Your task to perform on an android device: Turn off the flashlight Image 0: 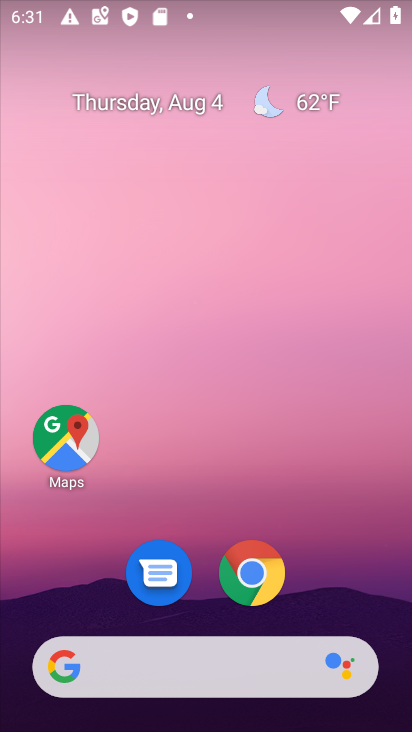
Step 0: drag from (238, 5) to (275, 570)
Your task to perform on an android device: Turn off the flashlight Image 1: 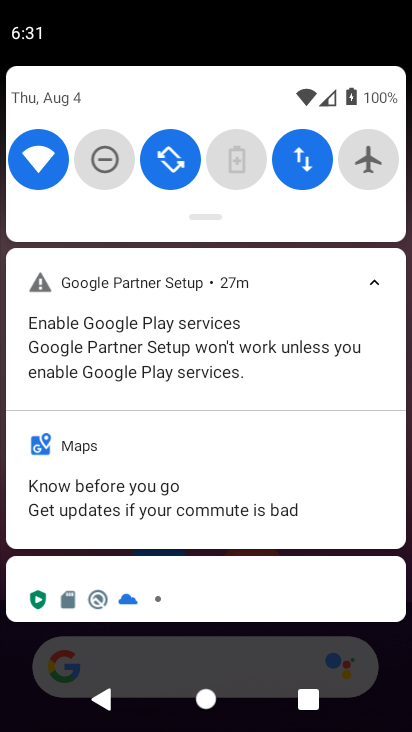
Step 1: task complete